Your task to perform on an android device: Go to Maps Image 0: 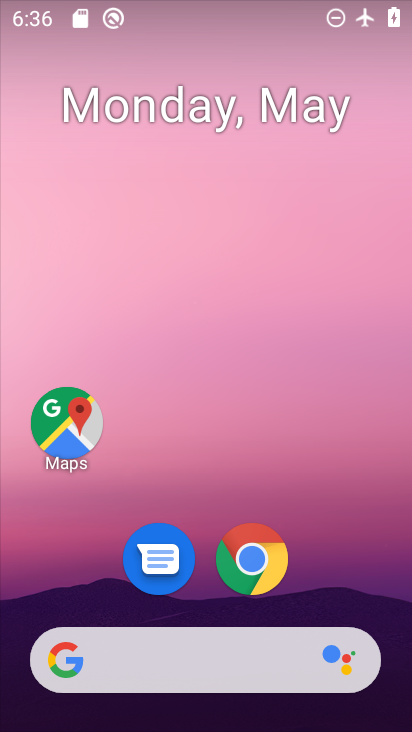
Step 0: click (47, 422)
Your task to perform on an android device: Go to Maps Image 1: 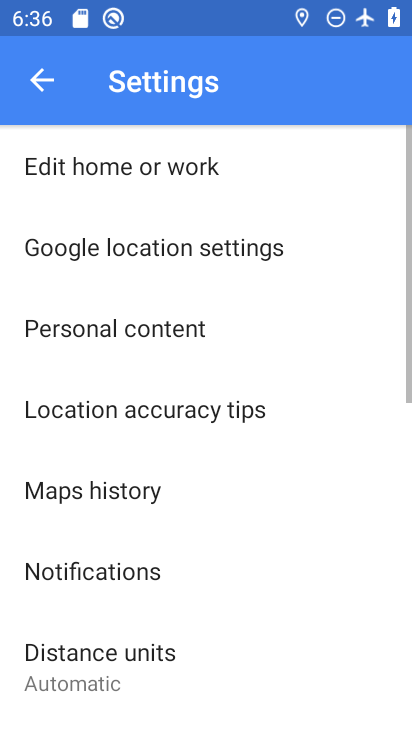
Step 1: click (48, 89)
Your task to perform on an android device: Go to Maps Image 2: 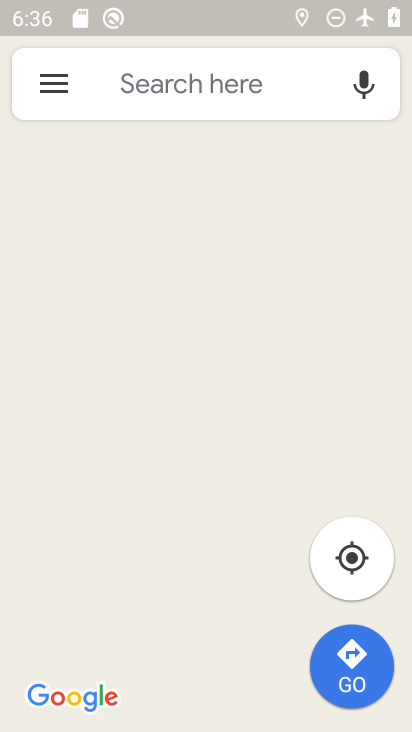
Step 2: task complete